Your task to perform on an android device: toggle notification dots Image 0: 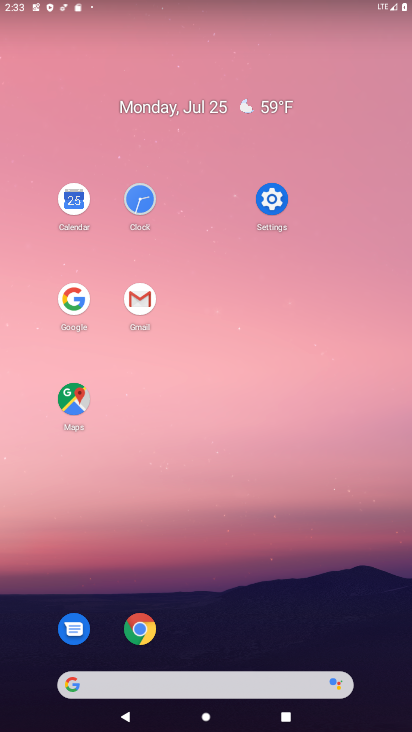
Step 0: click (280, 196)
Your task to perform on an android device: toggle notification dots Image 1: 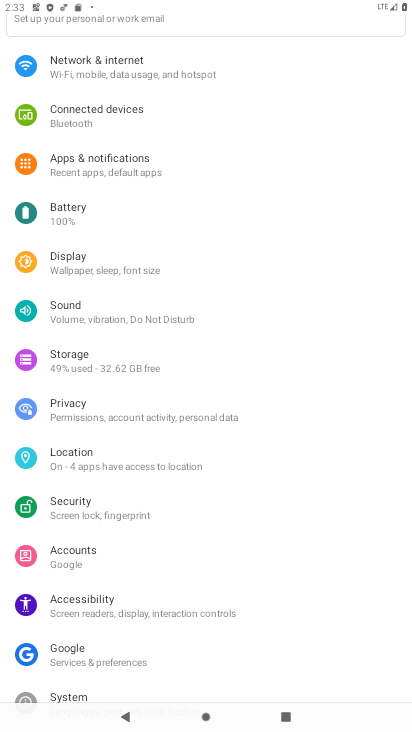
Step 1: click (169, 160)
Your task to perform on an android device: toggle notification dots Image 2: 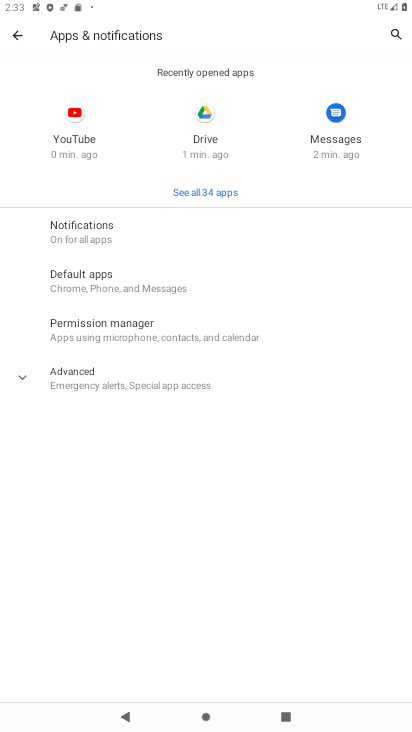
Step 2: click (129, 243)
Your task to perform on an android device: toggle notification dots Image 3: 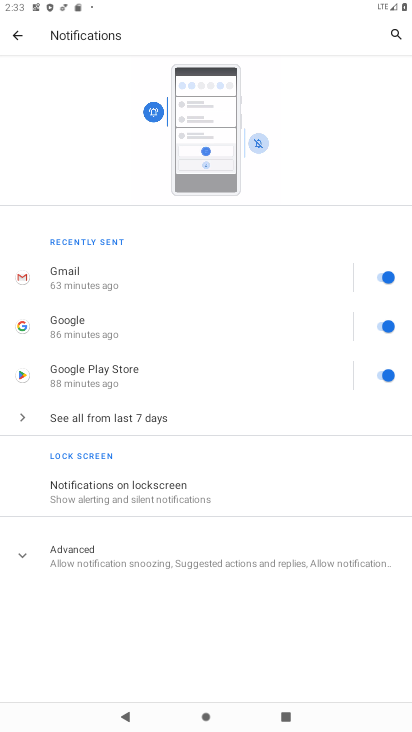
Step 3: click (176, 574)
Your task to perform on an android device: toggle notification dots Image 4: 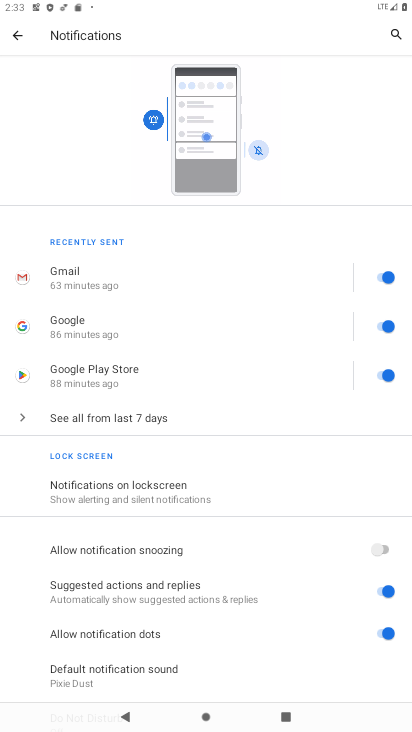
Step 4: click (392, 625)
Your task to perform on an android device: toggle notification dots Image 5: 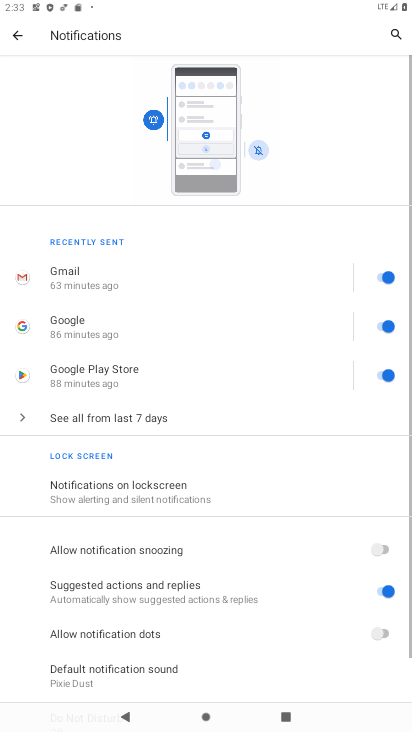
Step 5: task complete